Your task to perform on an android device: Go to notification settings Image 0: 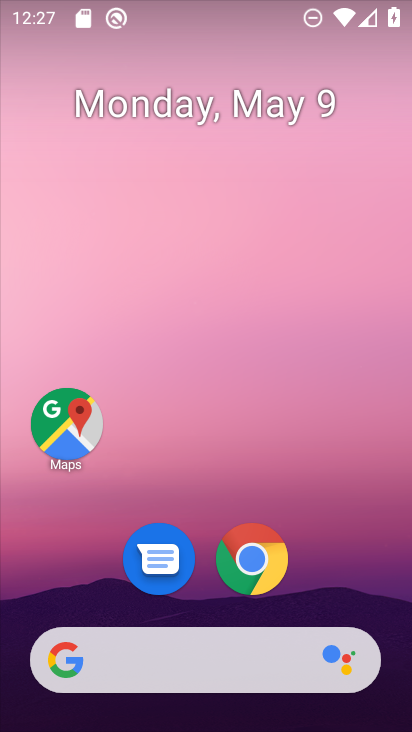
Step 0: drag from (346, 540) to (344, 102)
Your task to perform on an android device: Go to notification settings Image 1: 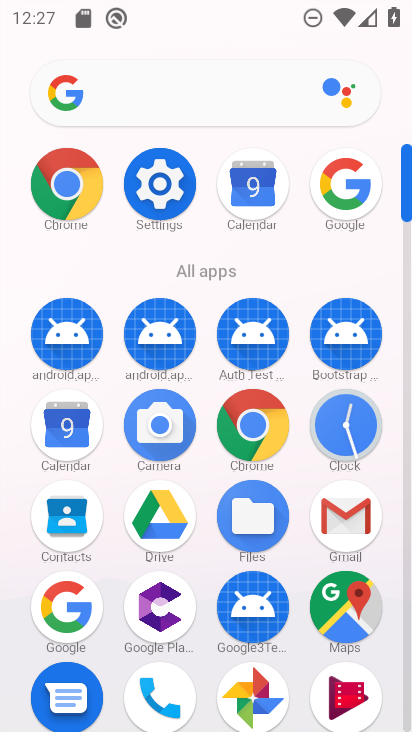
Step 1: click (188, 195)
Your task to perform on an android device: Go to notification settings Image 2: 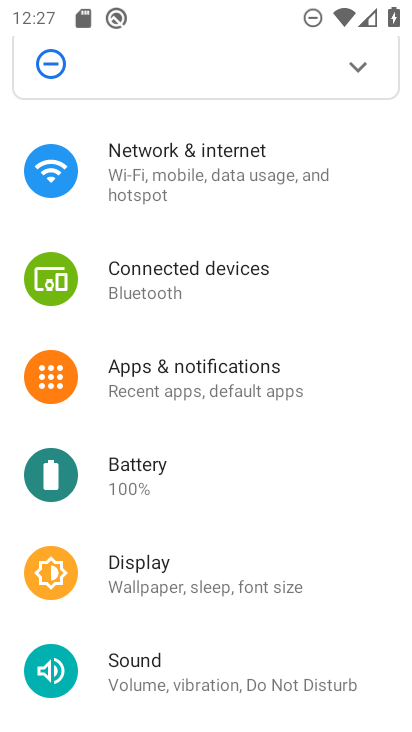
Step 2: click (147, 394)
Your task to perform on an android device: Go to notification settings Image 3: 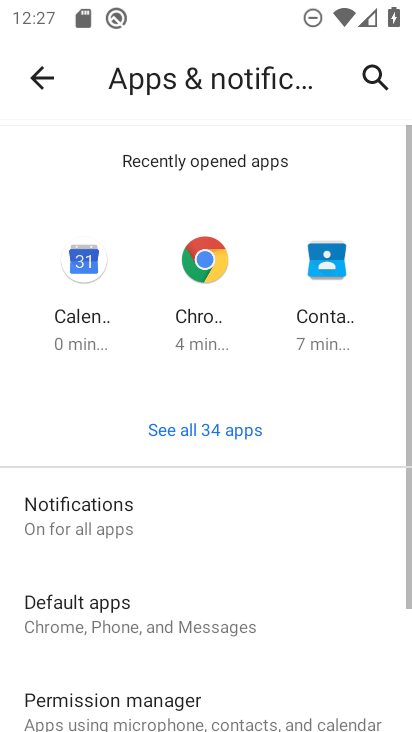
Step 3: task complete